Your task to perform on an android device: toggle notification dots Image 0: 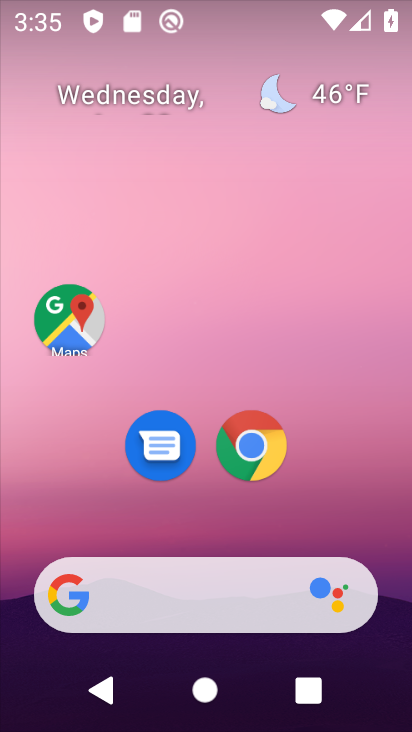
Step 0: drag from (203, 524) to (223, 22)
Your task to perform on an android device: toggle notification dots Image 1: 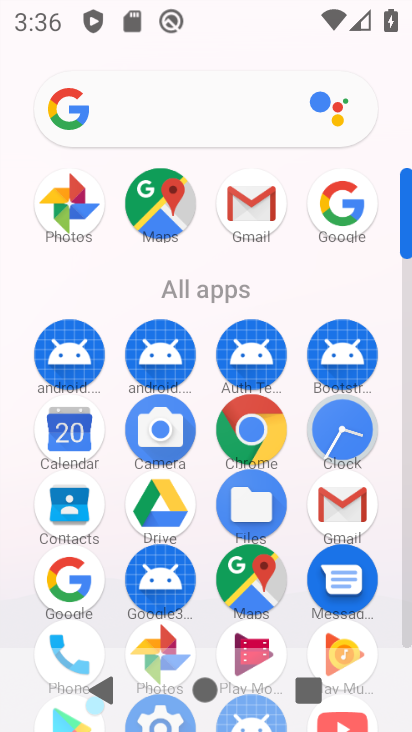
Step 1: drag from (203, 539) to (237, 0)
Your task to perform on an android device: toggle notification dots Image 2: 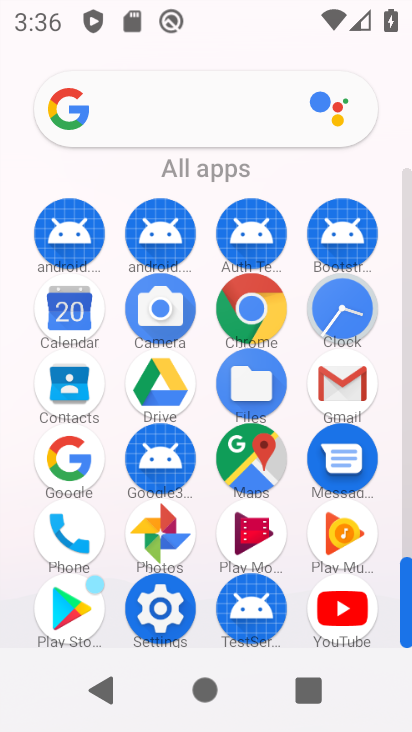
Step 2: click (146, 614)
Your task to perform on an android device: toggle notification dots Image 3: 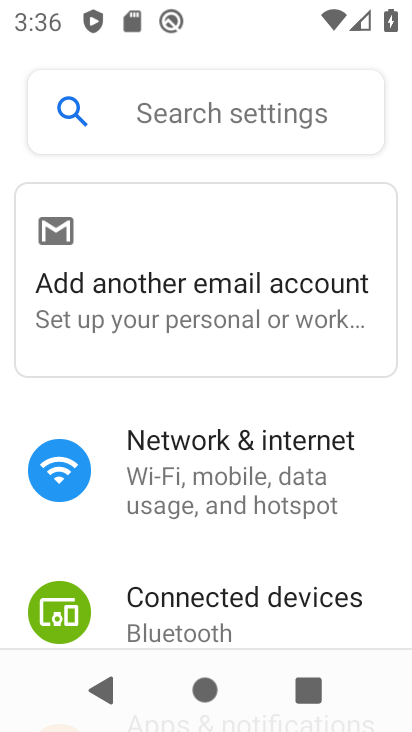
Step 3: drag from (219, 593) to (241, 133)
Your task to perform on an android device: toggle notification dots Image 4: 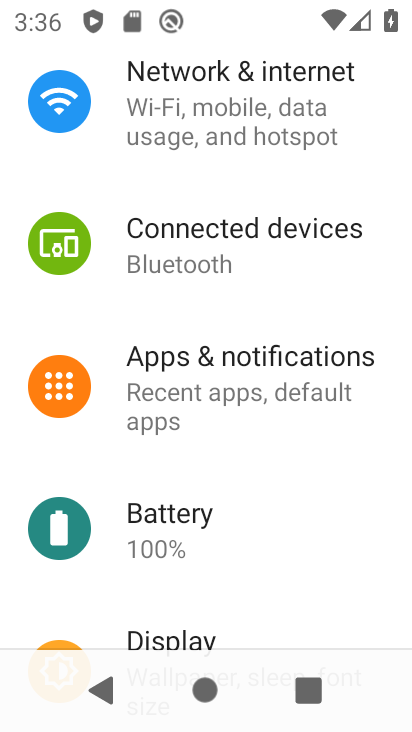
Step 4: click (184, 375)
Your task to perform on an android device: toggle notification dots Image 5: 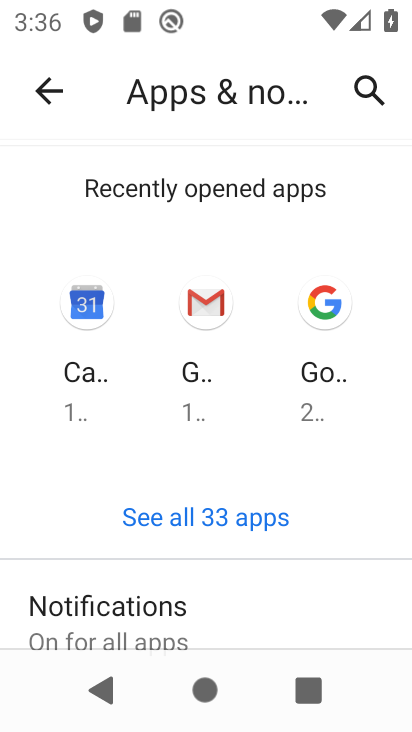
Step 5: click (216, 614)
Your task to perform on an android device: toggle notification dots Image 6: 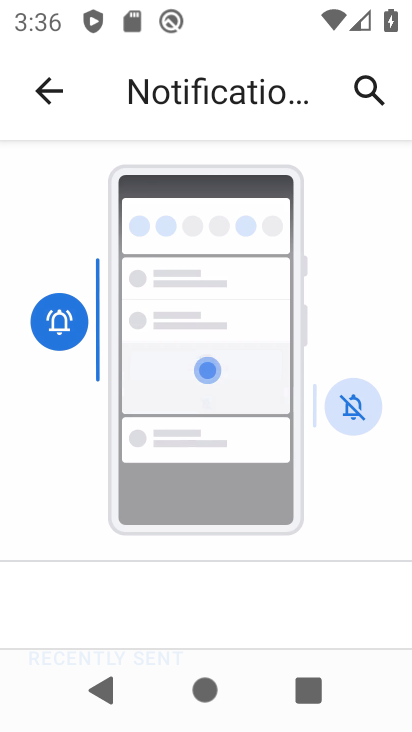
Step 6: drag from (219, 573) to (213, 80)
Your task to perform on an android device: toggle notification dots Image 7: 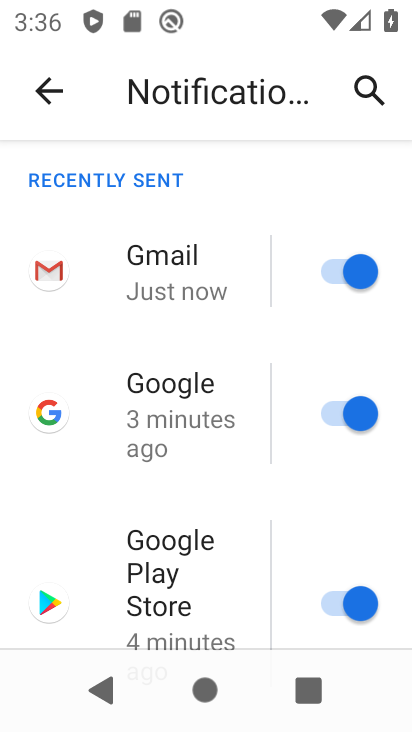
Step 7: drag from (239, 541) to (263, 72)
Your task to perform on an android device: toggle notification dots Image 8: 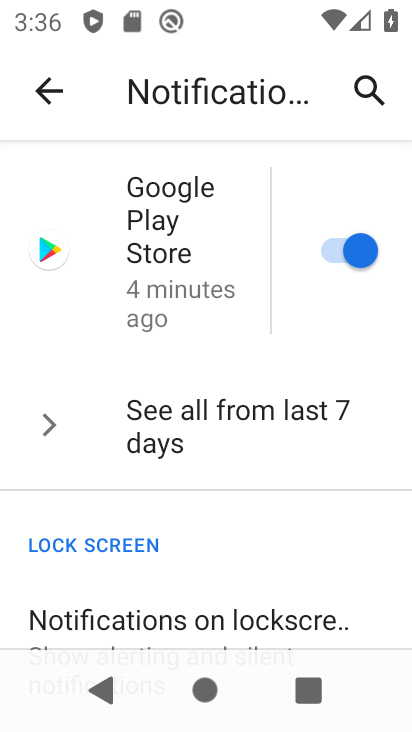
Step 8: drag from (212, 572) to (225, 84)
Your task to perform on an android device: toggle notification dots Image 9: 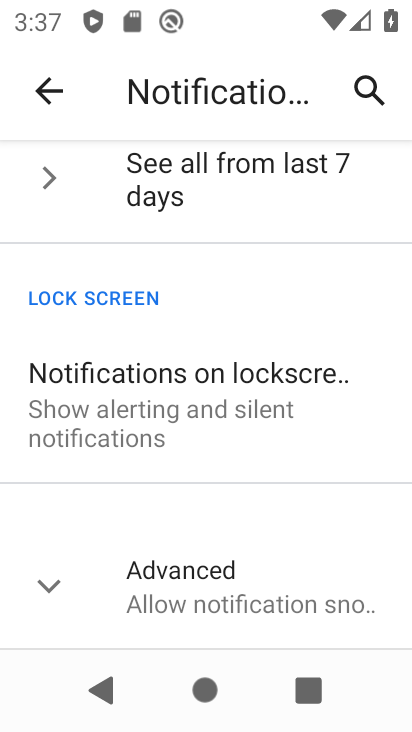
Step 9: click (76, 574)
Your task to perform on an android device: toggle notification dots Image 10: 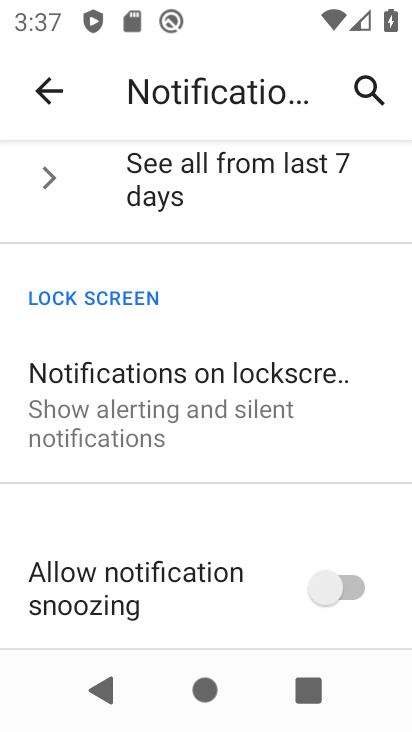
Step 10: task complete